Your task to perform on an android device: Open the map Image 0: 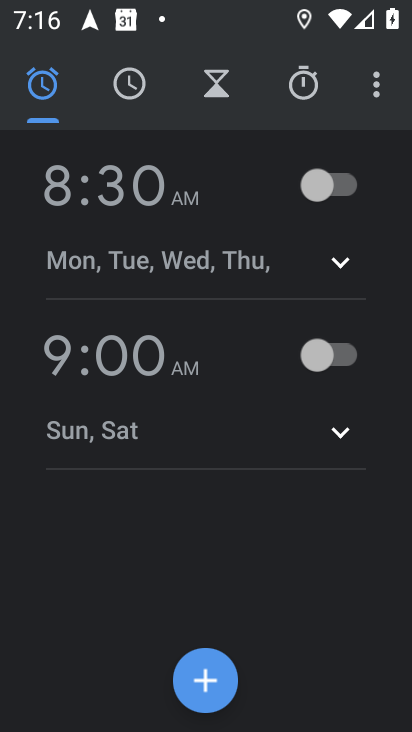
Step 0: press home button
Your task to perform on an android device: Open the map Image 1: 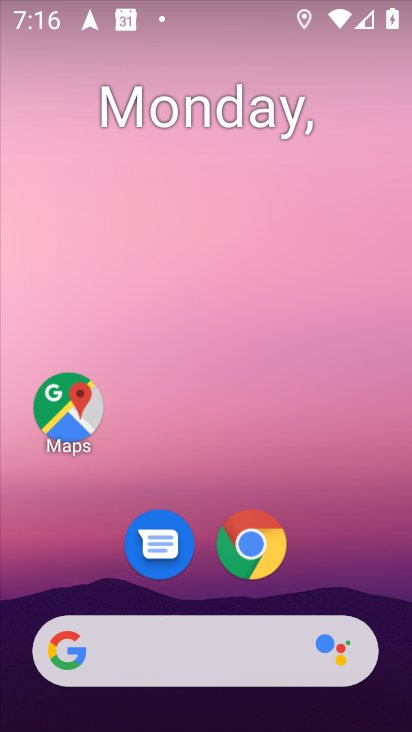
Step 1: click (59, 440)
Your task to perform on an android device: Open the map Image 2: 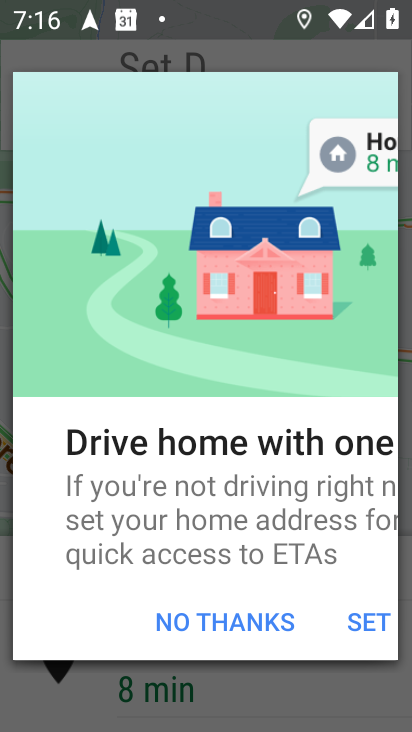
Step 2: click (231, 627)
Your task to perform on an android device: Open the map Image 3: 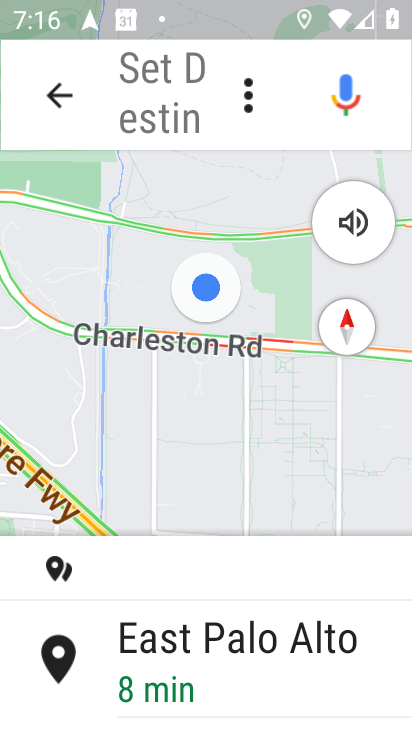
Step 3: task complete